Your task to perform on an android device: toggle improve location accuracy Image 0: 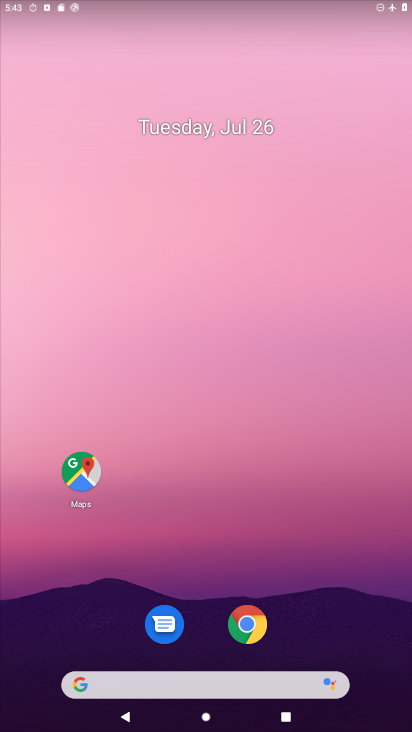
Step 0: drag from (178, 645) to (274, 1)
Your task to perform on an android device: toggle improve location accuracy Image 1: 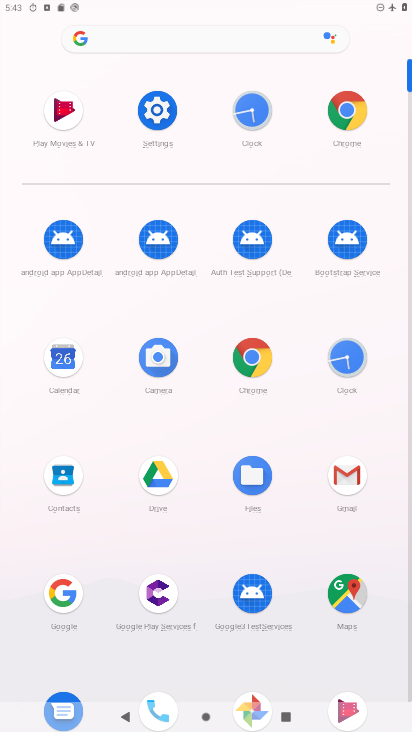
Step 1: click (166, 95)
Your task to perform on an android device: toggle improve location accuracy Image 2: 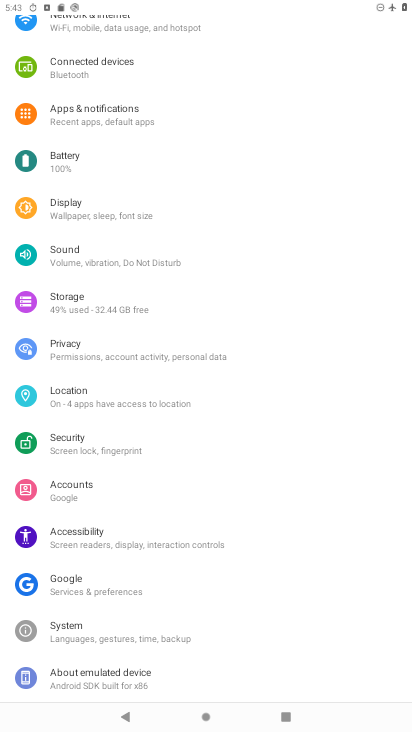
Step 2: click (76, 400)
Your task to perform on an android device: toggle improve location accuracy Image 3: 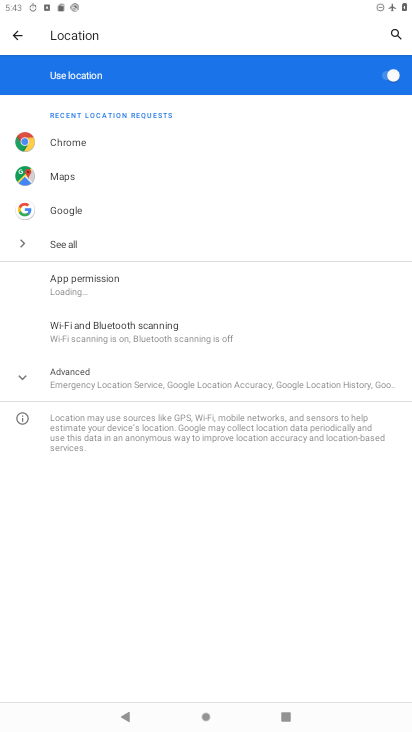
Step 3: click (113, 379)
Your task to perform on an android device: toggle improve location accuracy Image 4: 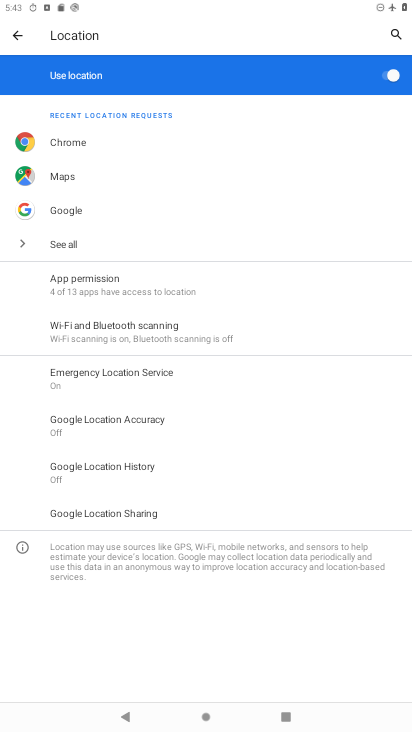
Step 4: click (154, 434)
Your task to perform on an android device: toggle improve location accuracy Image 5: 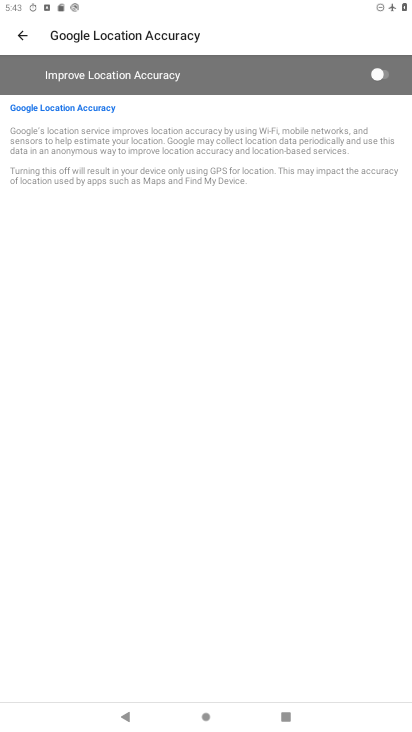
Step 5: click (378, 74)
Your task to perform on an android device: toggle improve location accuracy Image 6: 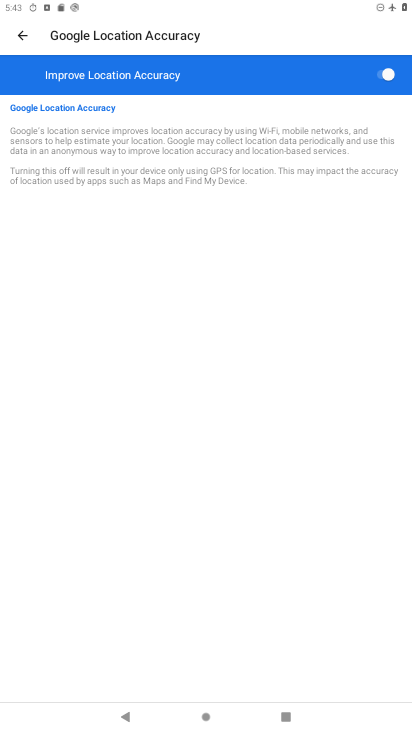
Step 6: task complete